Your task to perform on an android device: turn off notifications settings in the gmail app Image 0: 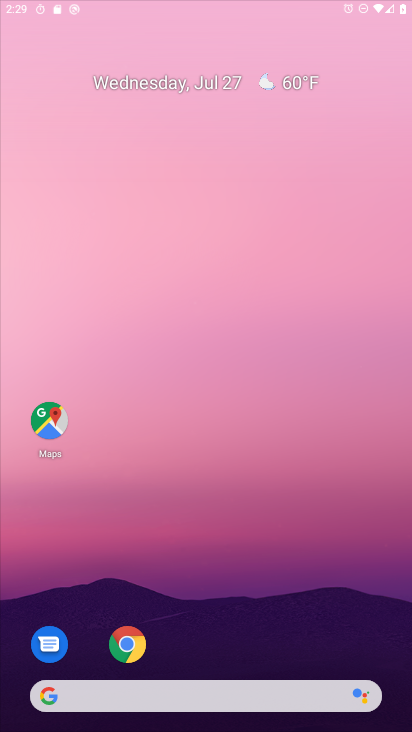
Step 0: click (374, 325)
Your task to perform on an android device: turn off notifications settings in the gmail app Image 1: 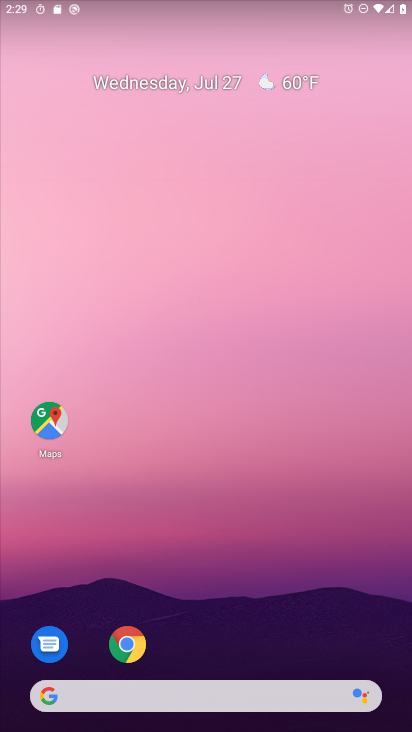
Step 1: drag from (201, 568) to (207, 246)
Your task to perform on an android device: turn off notifications settings in the gmail app Image 2: 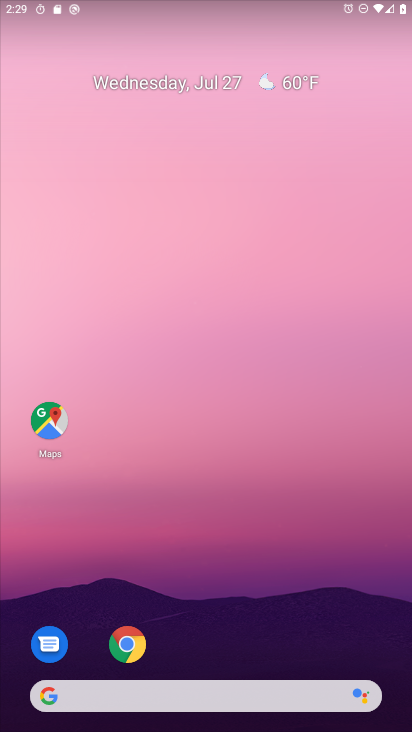
Step 2: drag from (214, 631) to (214, 138)
Your task to perform on an android device: turn off notifications settings in the gmail app Image 3: 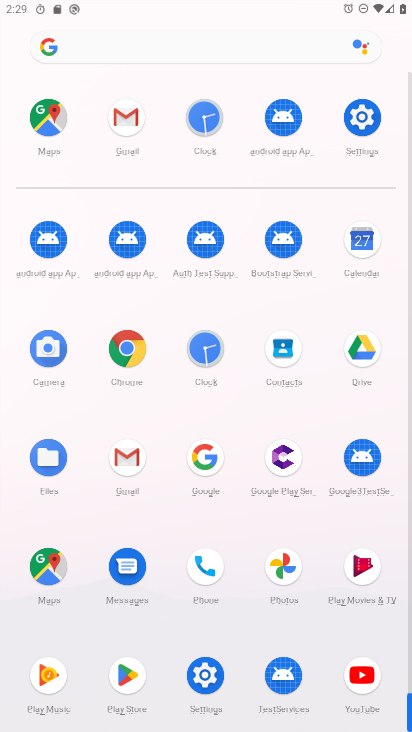
Step 3: click (123, 452)
Your task to perform on an android device: turn off notifications settings in the gmail app Image 4: 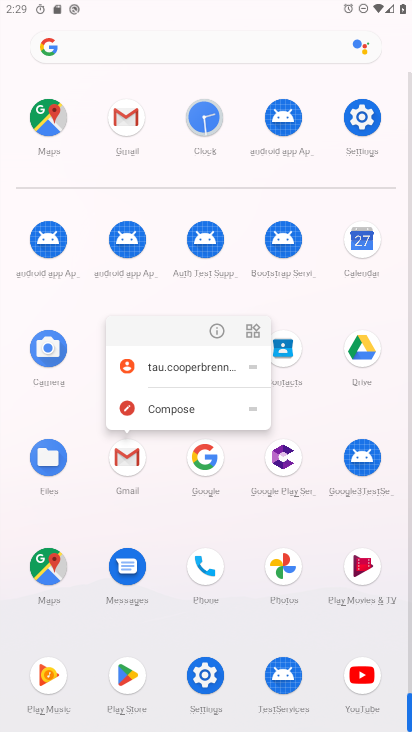
Step 4: click (205, 329)
Your task to perform on an android device: turn off notifications settings in the gmail app Image 5: 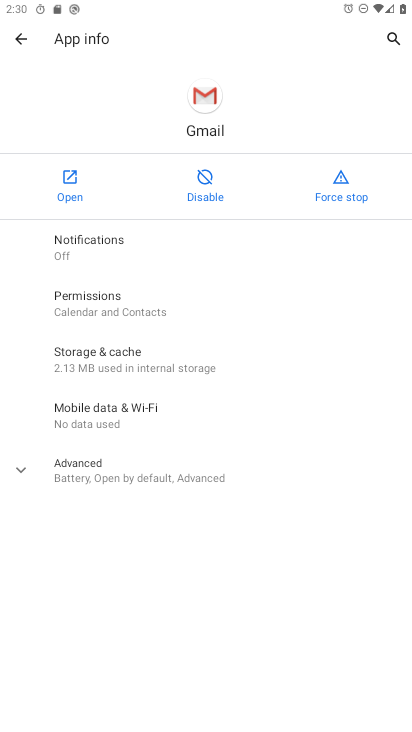
Step 5: click (60, 178)
Your task to perform on an android device: turn off notifications settings in the gmail app Image 6: 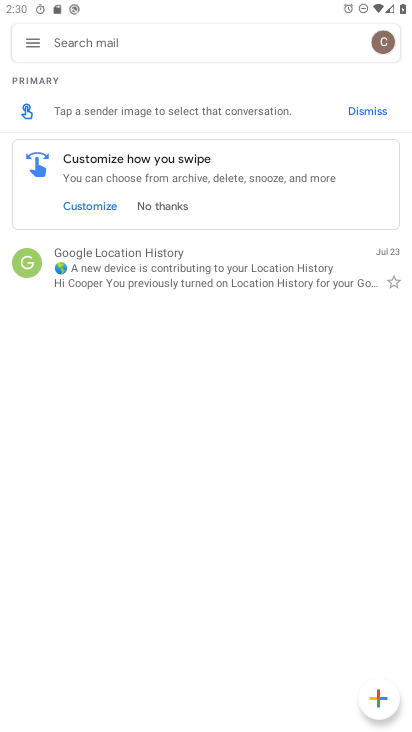
Step 6: click (33, 48)
Your task to perform on an android device: turn off notifications settings in the gmail app Image 7: 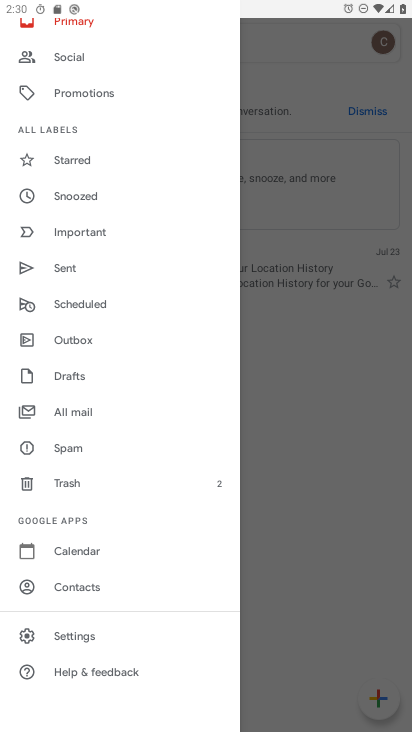
Step 7: click (66, 626)
Your task to perform on an android device: turn off notifications settings in the gmail app Image 8: 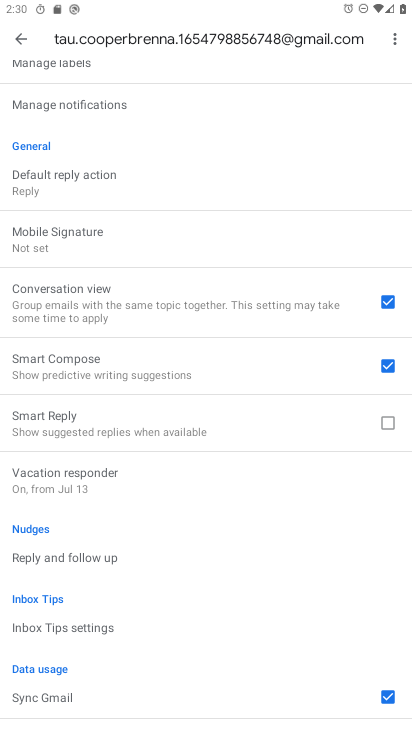
Step 8: drag from (139, 244) to (173, 713)
Your task to perform on an android device: turn off notifications settings in the gmail app Image 9: 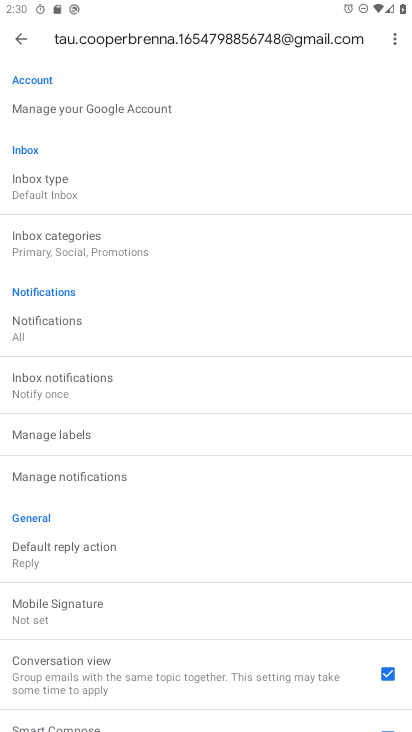
Step 9: click (70, 476)
Your task to perform on an android device: turn off notifications settings in the gmail app Image 10: 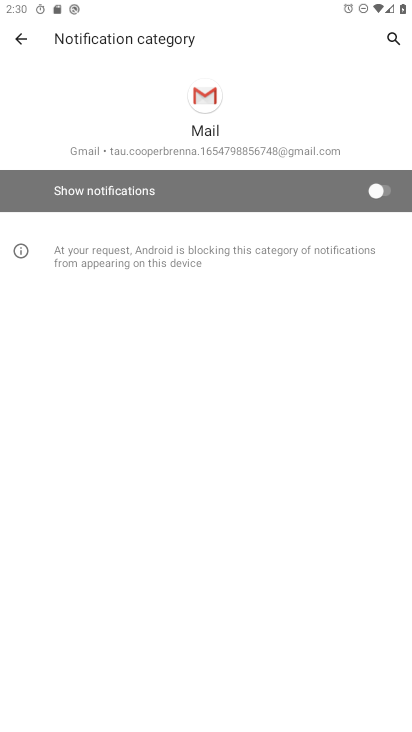
Step 10: task complete